Your task to perform on an android device: Show the shopping cart on costco. Search for amazon basics triple a on costco, select the first entry, add it to the cart, then select checkout. Image 0: 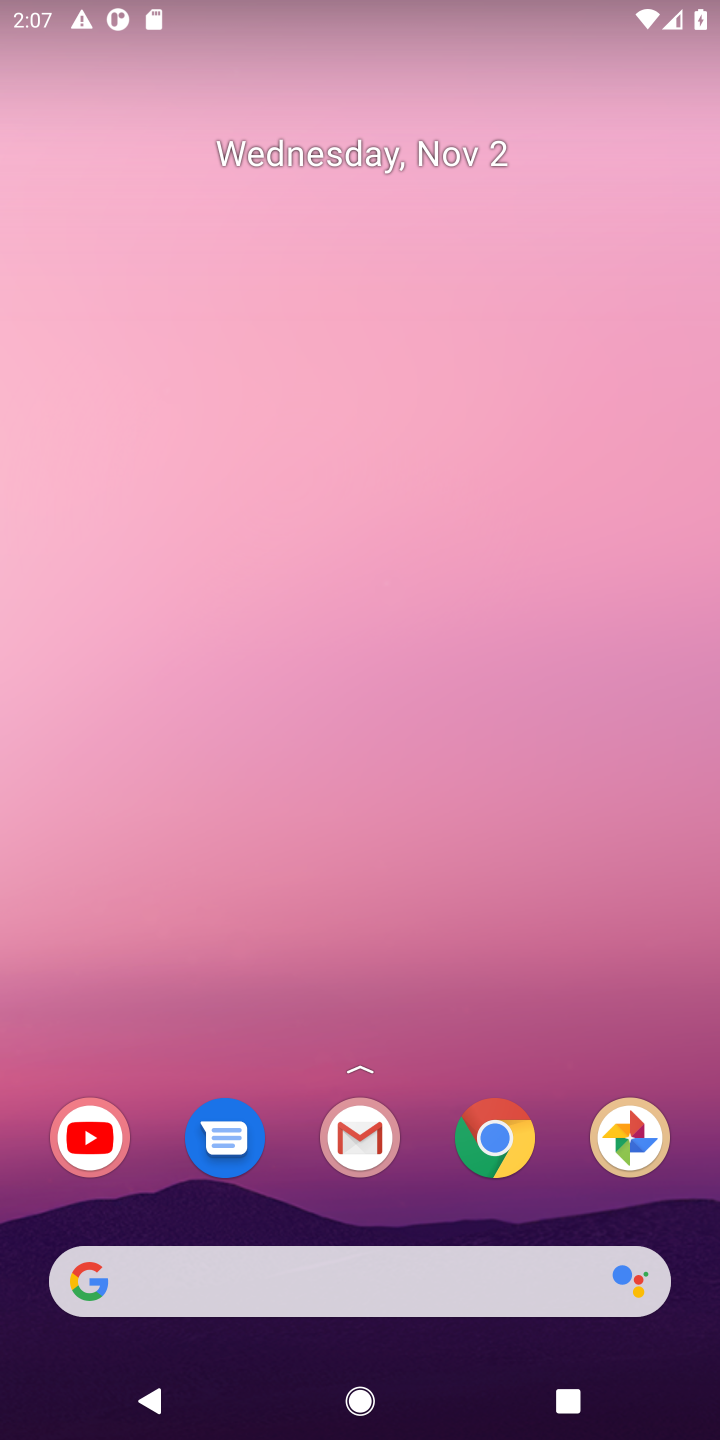
Step 0: press home button
Your task to perform on an android device: Show the shopping cart on costco. Search for amazon basics triple a on costco, select the first entry, add it to the cart, then select checkout. Image 1: 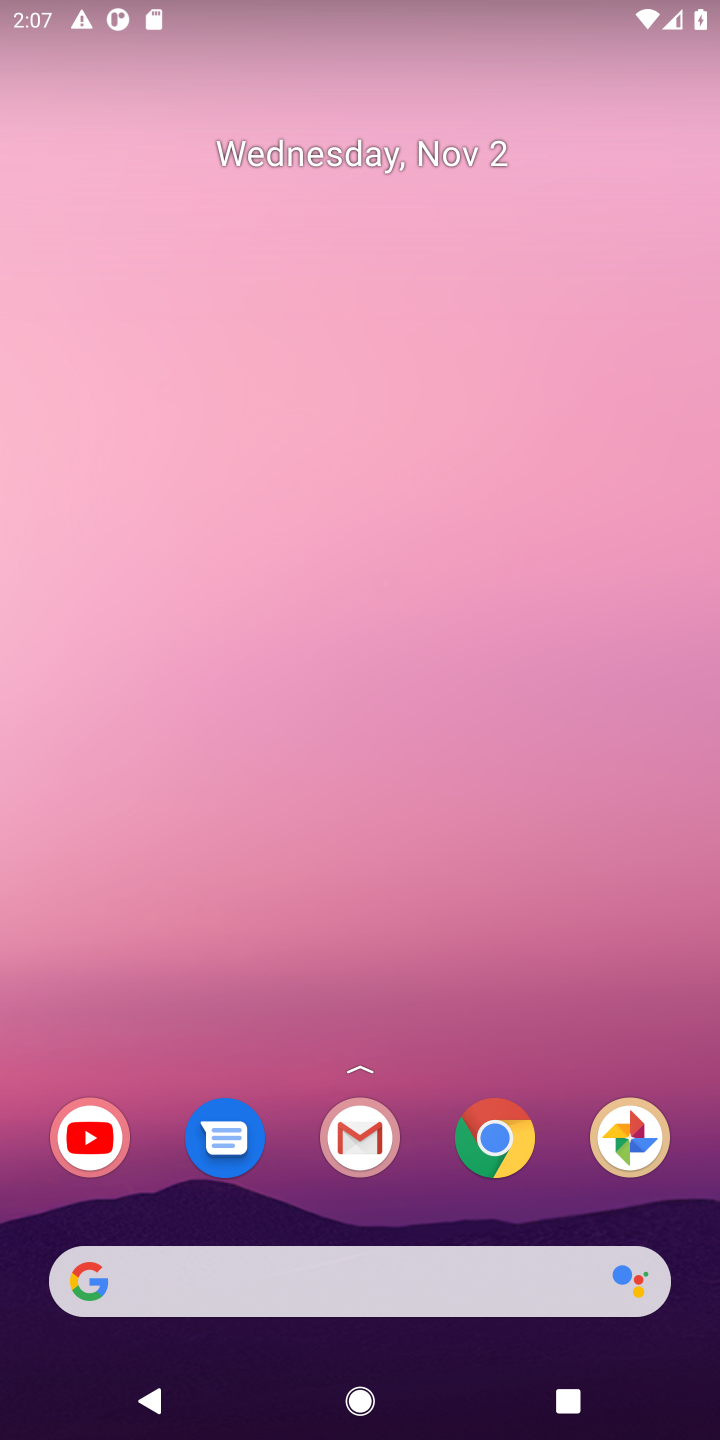
Step 1: click (164, 1275)
Your task to perform on an android device: Show the shopping cart on costco. Search for amazon basics triple a on costco, select the first entry, add it to the cart, then select checkout. Image 2: 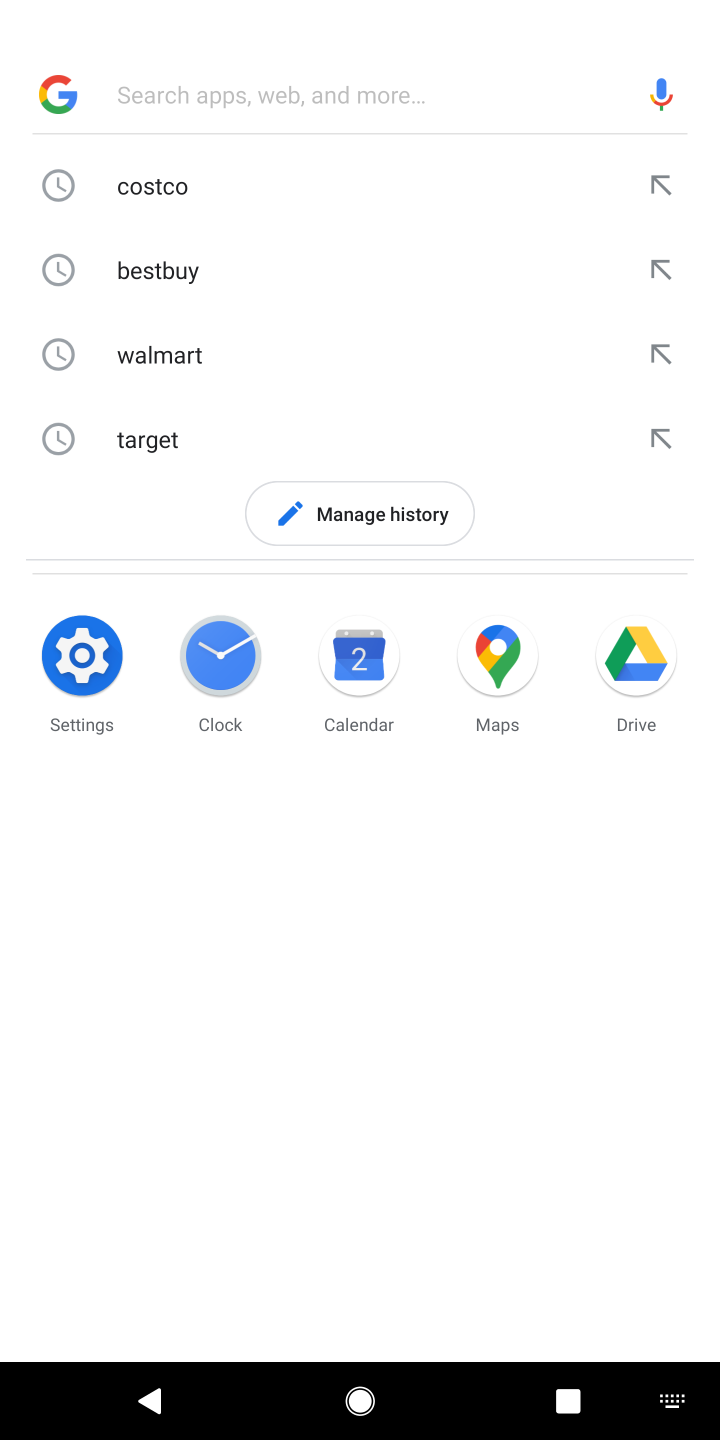
Step 2: press enter
Your task to perform on an android device: Show the shopping cart on costco. Search for amazon basics triple a on costco, select the first entry, add it to the cart, then select checkout. Image 3: 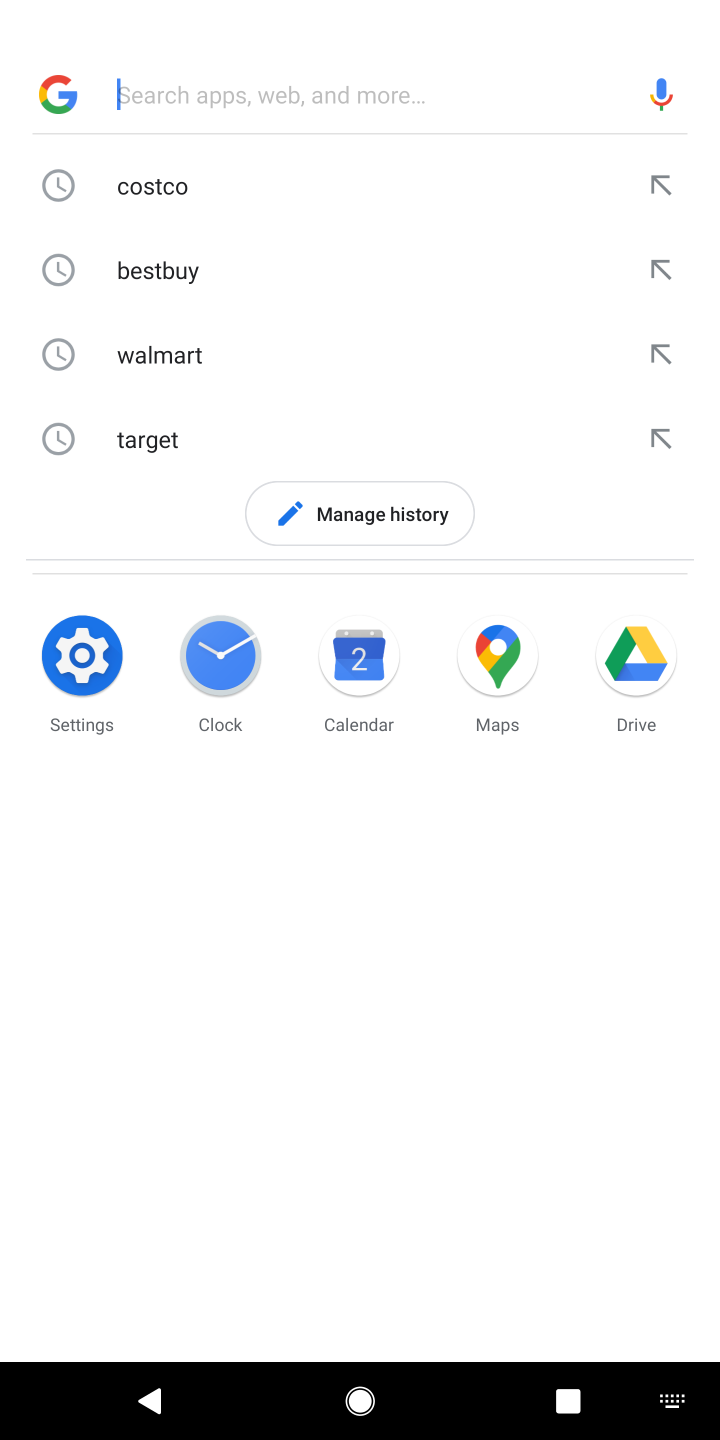
Step 3: type "costco."
Your task to perform on an android device: Show the shopping cart on costco. Search for amazon basics triple a on costco, select the first entry, add it to the cart, then select checkout. Image 4: 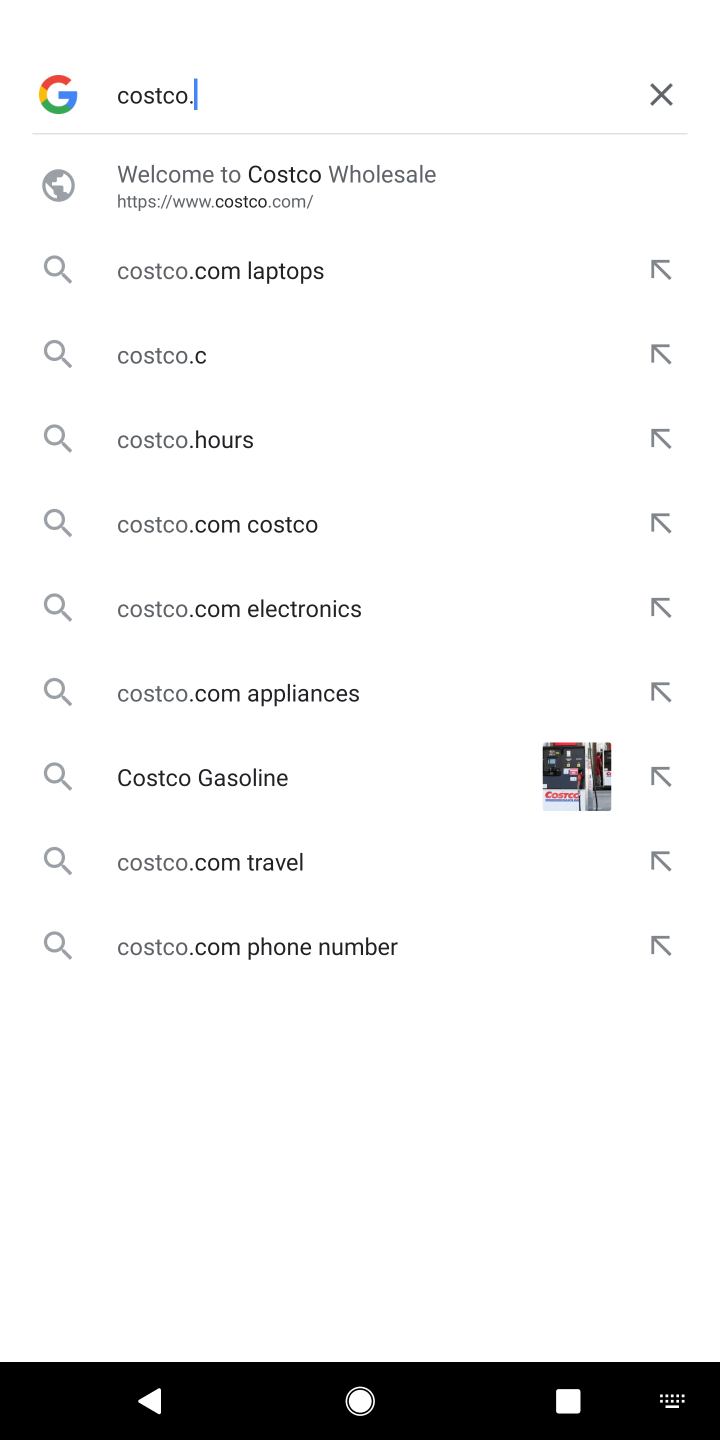
Step 4: press enter
Your task to perform on an android device: Show the shopping cart on costco. Search for amazon basics triple a on costco, select the first entry, add it to the cart, then select checkout. Image 5: 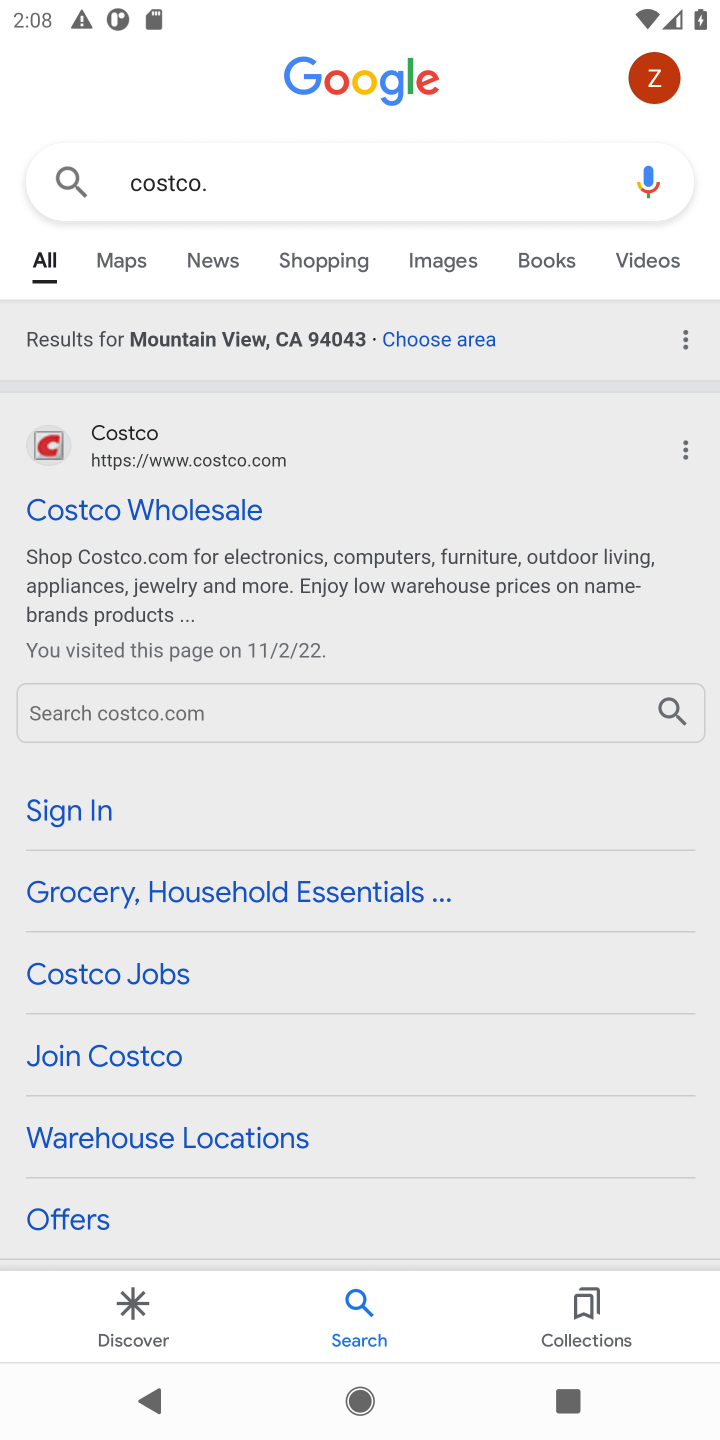
Step 5: click (107, 509)
Your task to perform on an android device: Show the shopping cart on costco. Search for amazon basics triple a on costco, select the first entry, add it to the cart, then select checkout. Image 6: 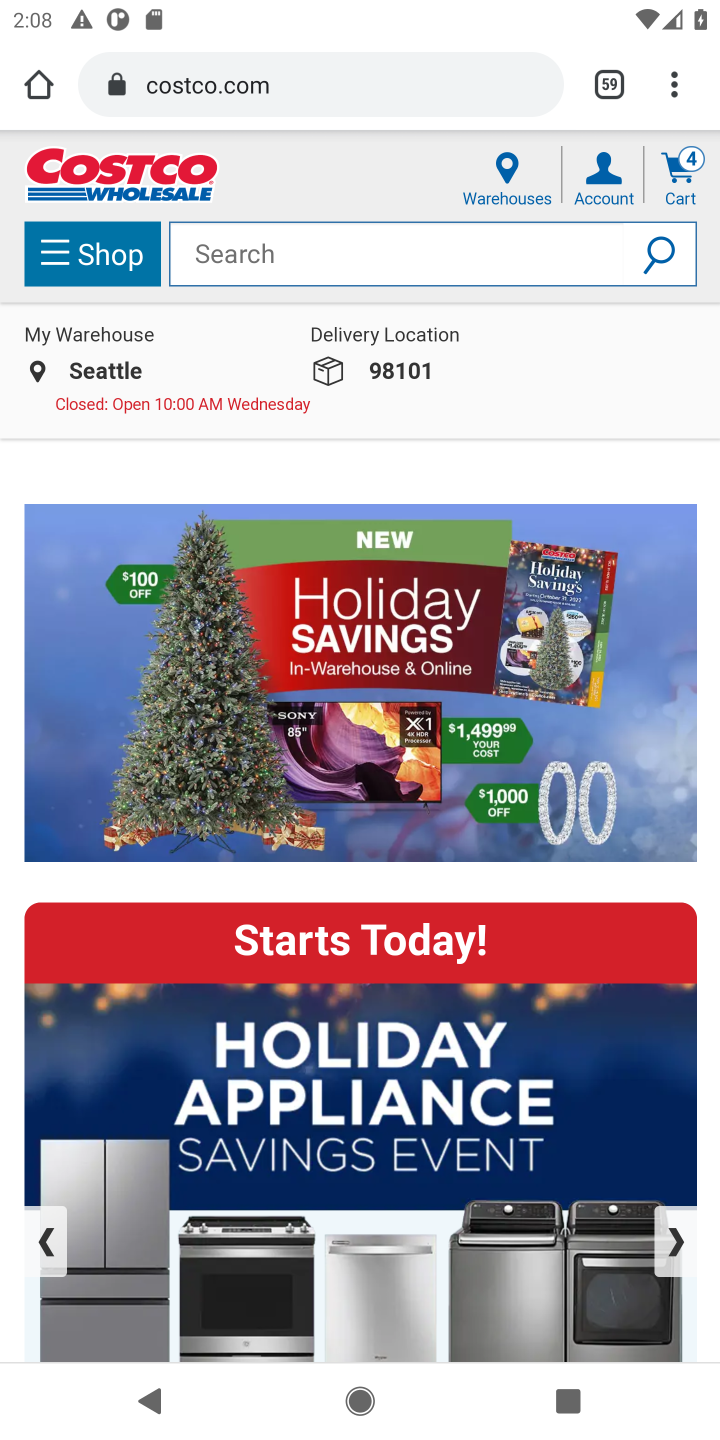
Step 6: click (682, 178)
Your task to perform on an android device: Show the shopping cart on costco. Search for amazon basics triple a on costco, select the first entry, add it to the cart, then select checkout. Image 7: 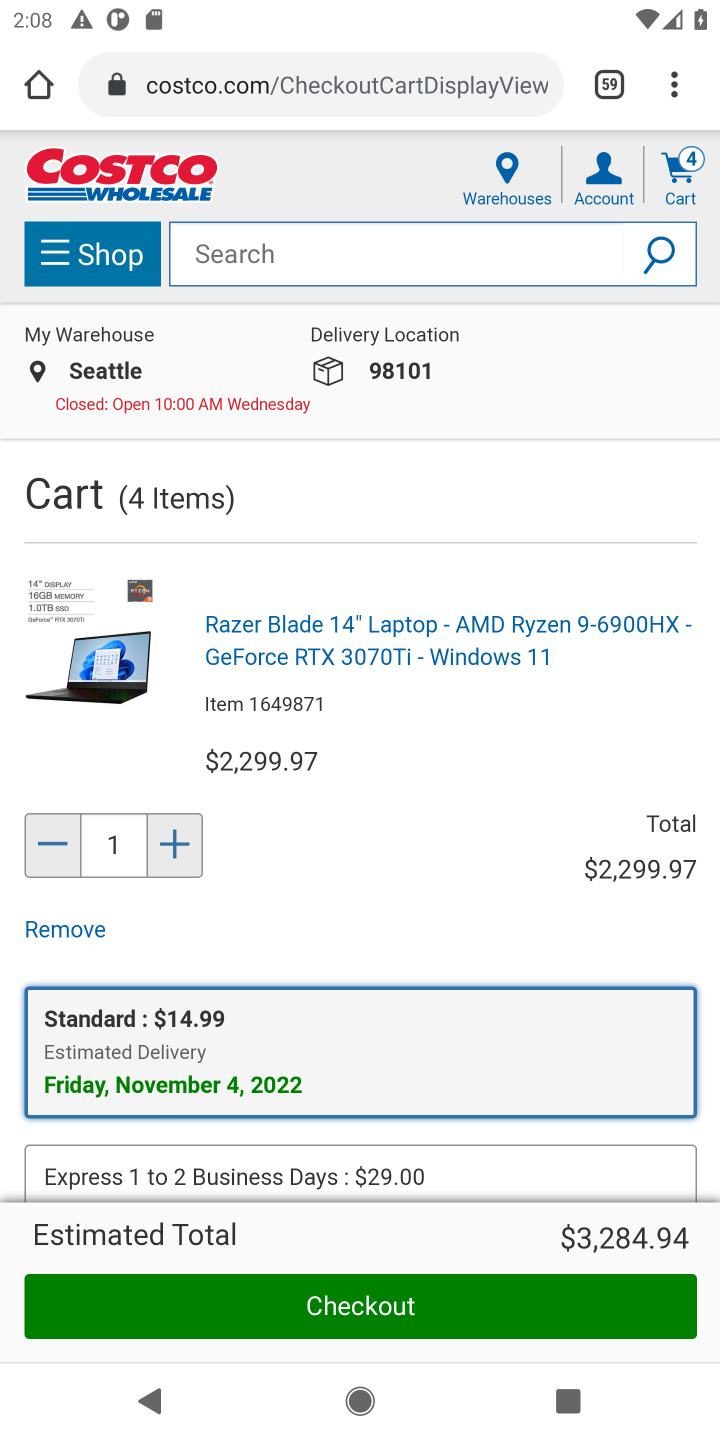
Step 7: click (245, 252)
Your task to perform on an android device: Show the shopping cart on costco. Search for amazon basics triple a on costco, select the first entry, add it to the cart, then select checkout. Image 8: 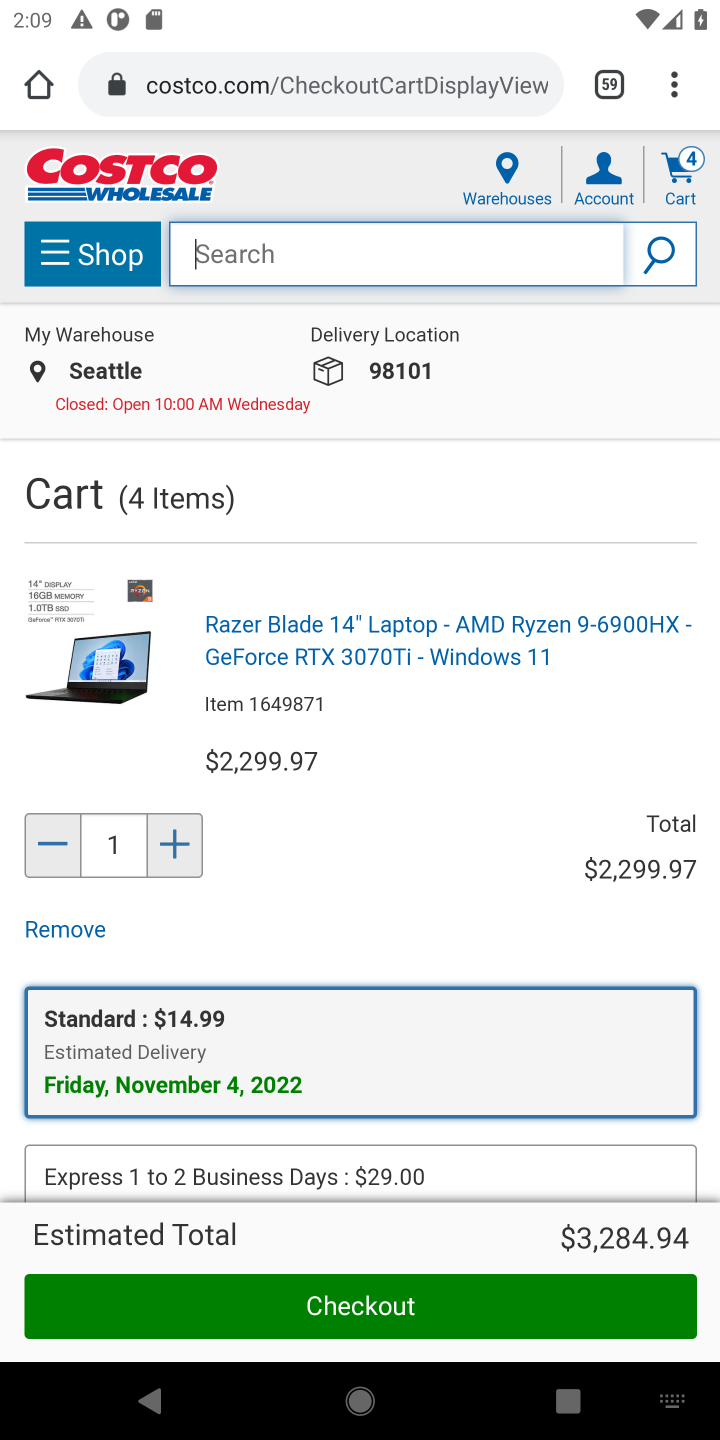
Step 8: type "amazon basics triple a"
Your task to perform on an android device: Show the shopping cart on costco. Search for amazon basics triple a on costco, select the first entry, add it to the cart, then select checkout. Image 9: 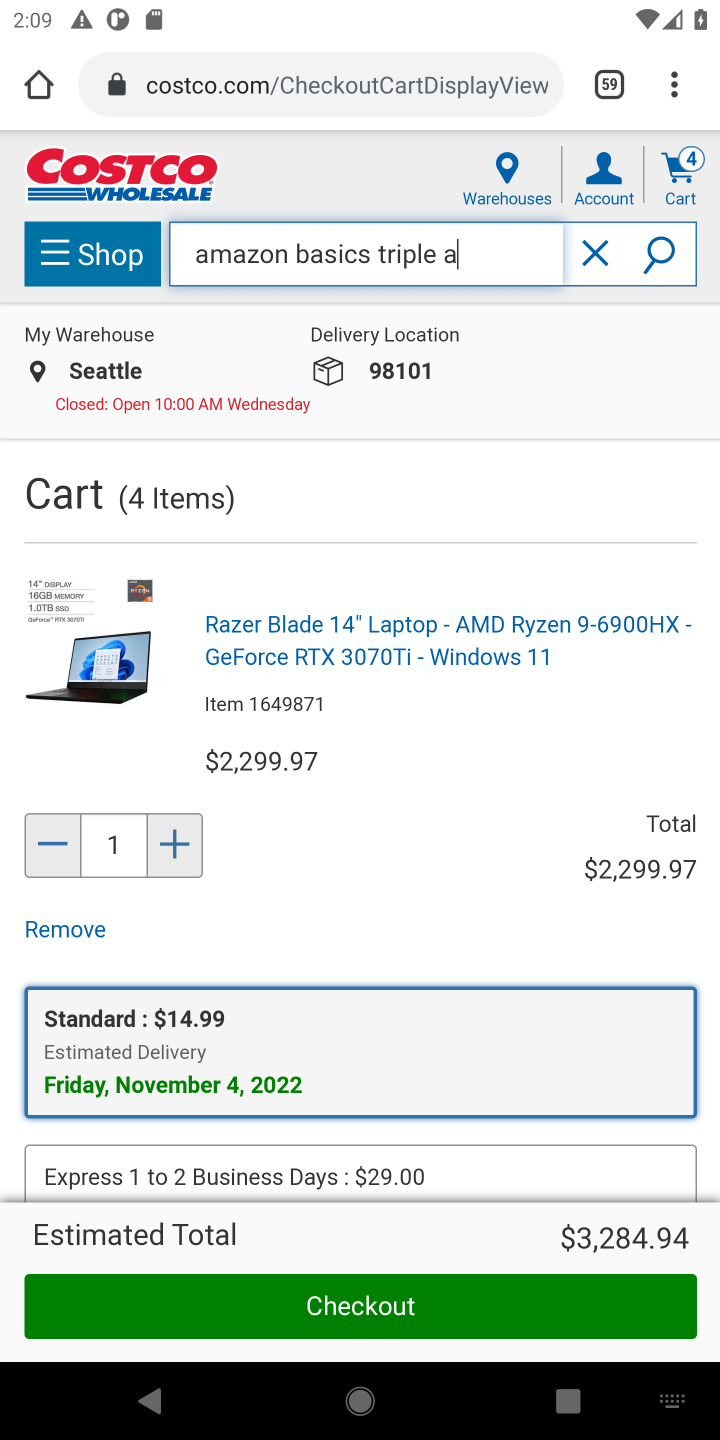
Step 9: press enter
Your task to perform on an android device: Show the shopping cart on costco. Search for amazon basics triple a on costco, select the first entry, add it to the cart, then select checkout. Image 10: 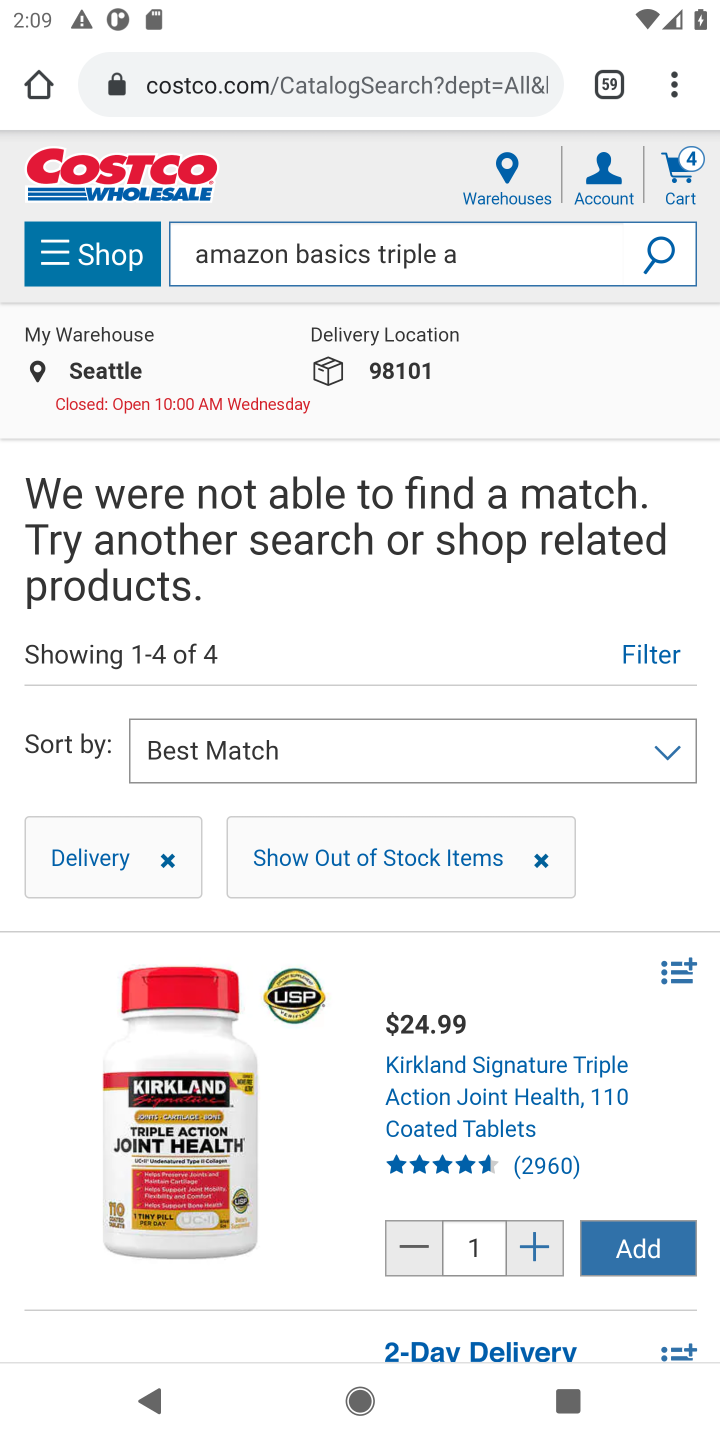
Step 10: task complete